Your task to perform on an android device: move a message to another label in the gmail app Image 0: 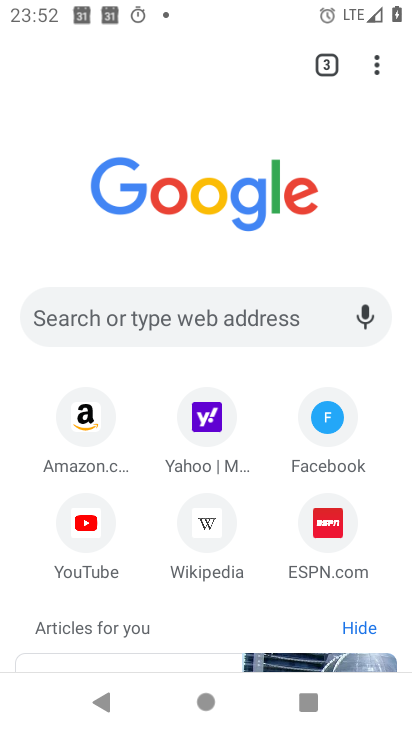
Step 0: press home button
Your task to perform on an android device: move a message to another label in the gmail app Image 1: 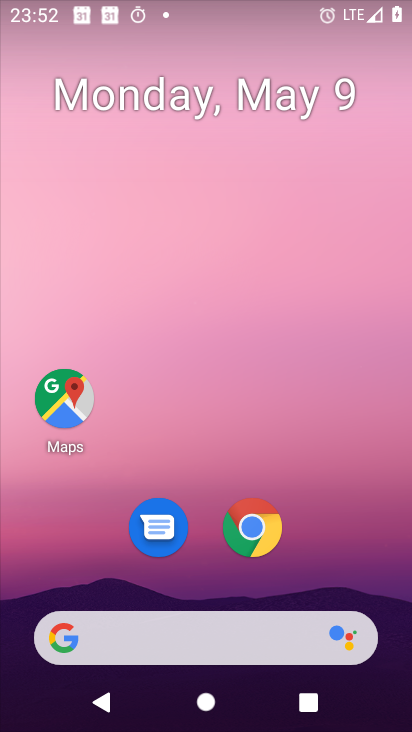
Step 1: drag from (204, 444) to (187, 114)
Your task to perform on an android device: move a message to another label in the gmail app Image 2: 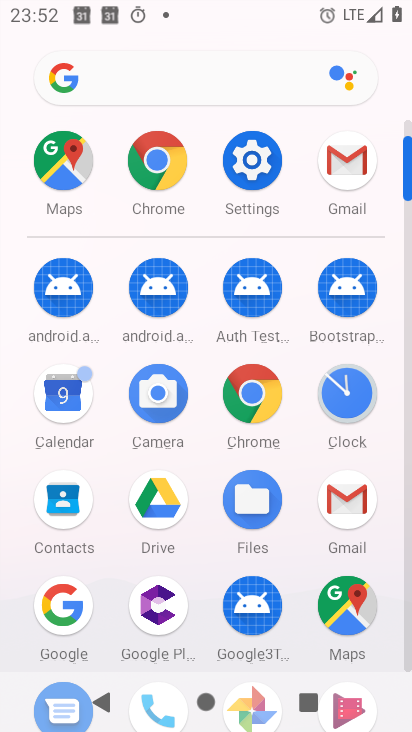
Step 2: click (353, 160)
Your task to perform on an android device: move a message to another label in the gmail app Image 3: 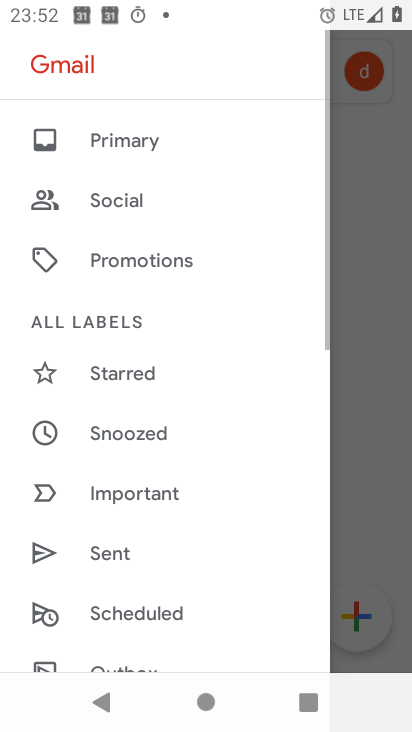
Step 3: click (340, 214)
Your task to perform on an android device: move a message to another label in the gmail app Image 4: 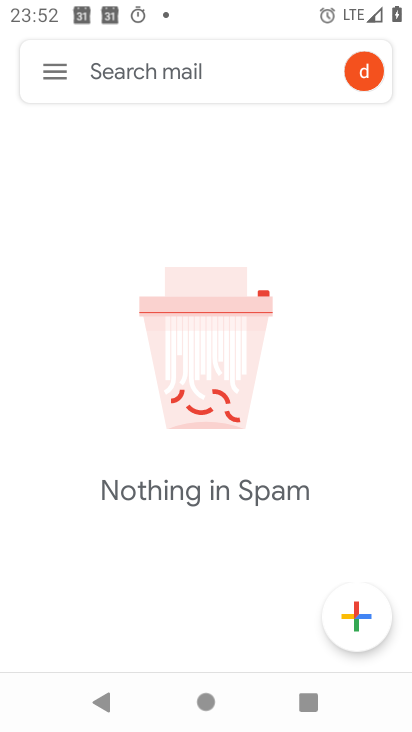
Step 4: click (40, 74)
Your task to perform on an android device: move a message to another label in the gmail app Image 5: 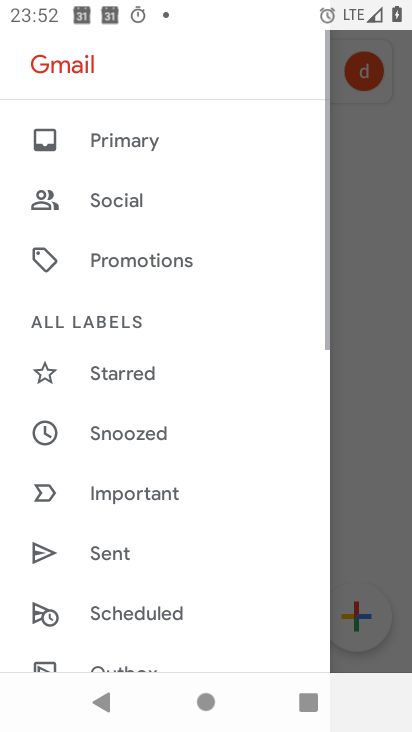
Step 5: drag from (172, 534) to (154, 252)
Your task to perform on an android device: move a message to another label in the gmail app Image 6: 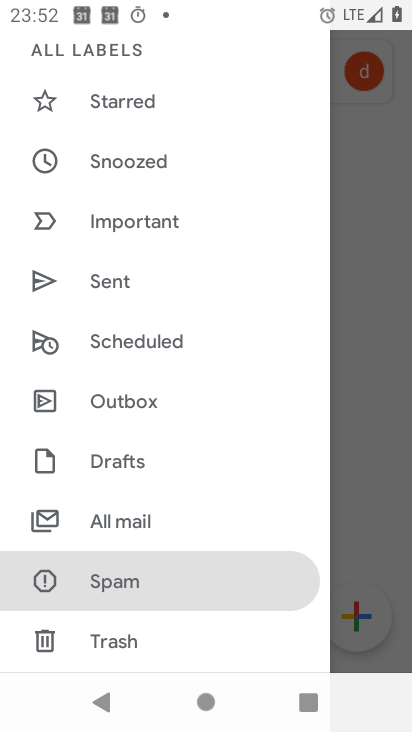
Step 6: click (143, 503)
Your task to perform on an android device: move a message to another label in the gmail app Image 7: 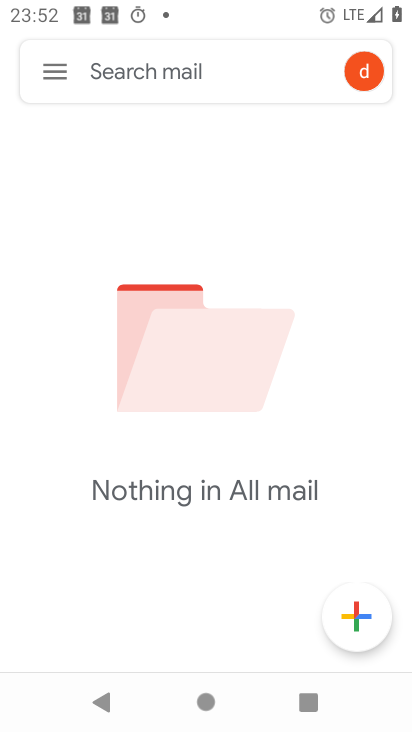
Step 7: task complete